Your task to perform on an android device: Go to Google Image 0: 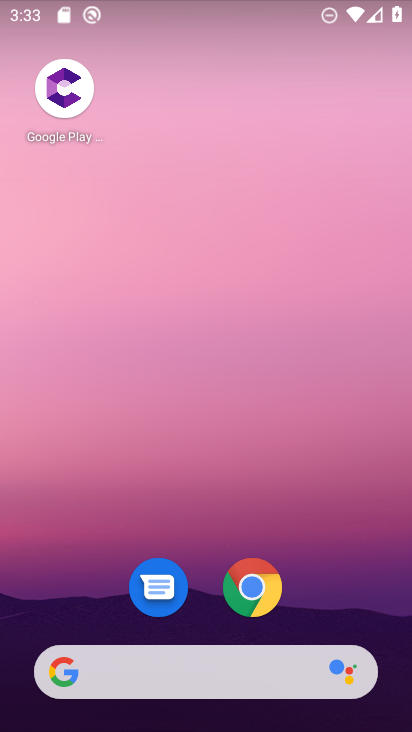
Step 0: drag from (338, 545) to (323, 187)
Your task to perform on an android device: Go to Google Image 1: 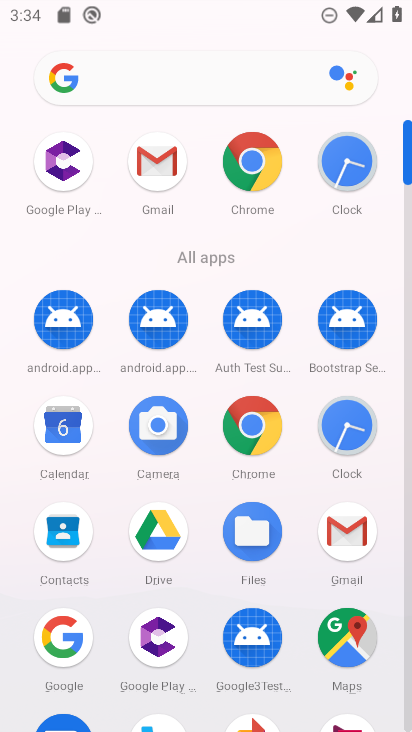
Step 1: click (69, 652)
Your task to perform on an android device: Go to Google Image 2: 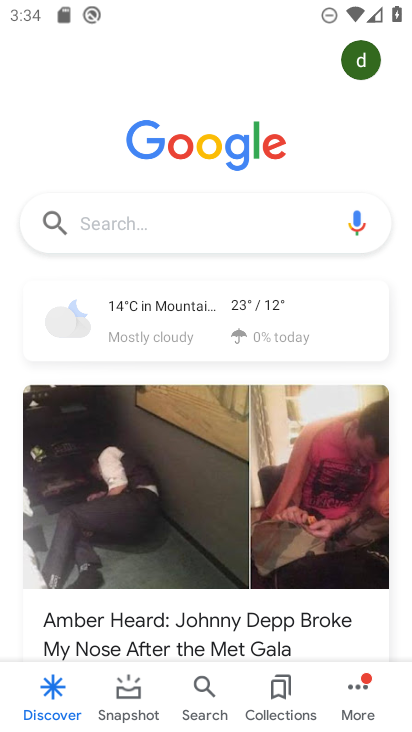
Step 2: task complete